Your task to perform on an android device: turn on javascript in the chrome app Image 0: 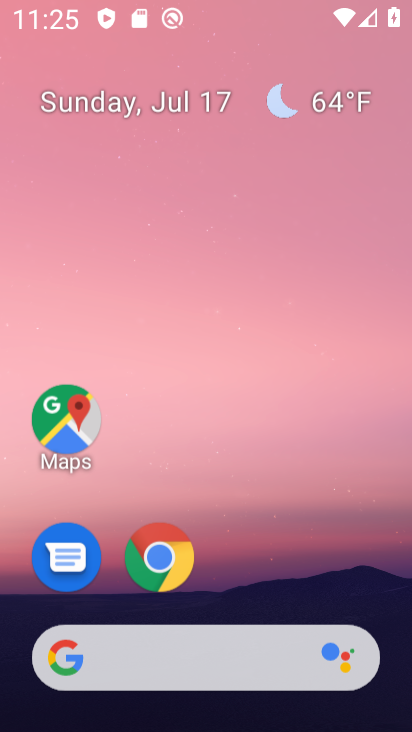
Step 0: drag from (344, 536) to (331, 341)
Your task to perform on an android device: turn on javascript in the chrome app Image 1: 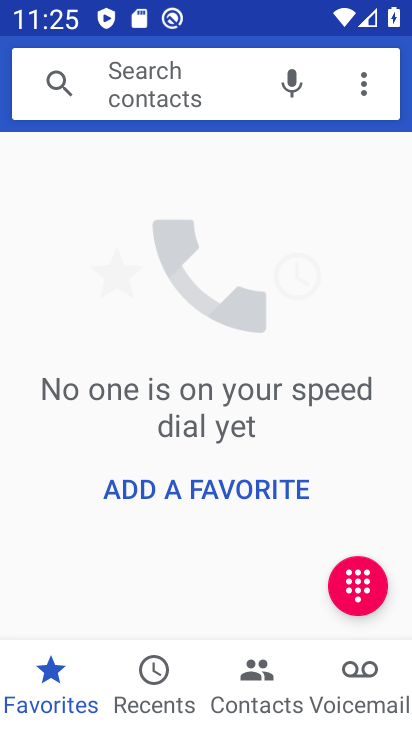
Step 1: press home button
Your task to perform on an android device: turn on javascript in the chrome app Image 2: 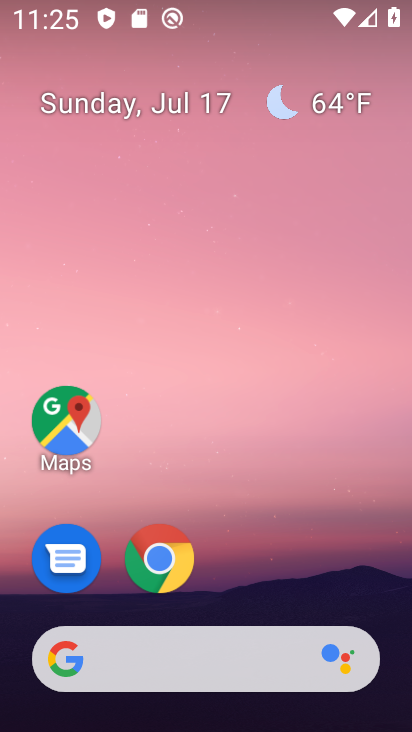
Step 2: drag from (333, 573) to (337, 97)
Your task to perform on an android device: turn on javascript in the chrome app Image 3: 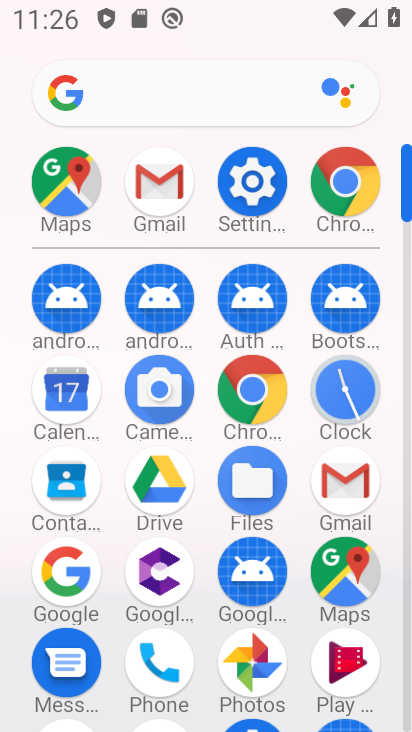
Step 3: click (358, 199)
Your task to perform on an android device: turn on javascript in the chrome app Image 4: 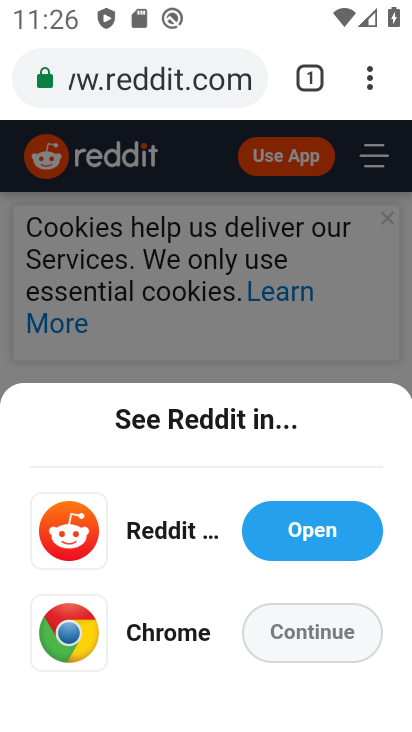
Step 4: click (367, 86)
Your task to perform on an android device: turn on javascript in the chrome app Image 5: 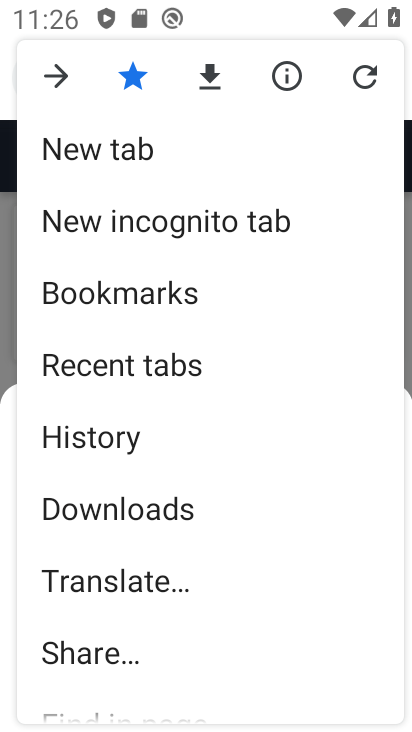
Step 5: drag from (357, 582) to (354, 500)
Your task to perform on an android device: turn on javascript in the chrome app Image 6: 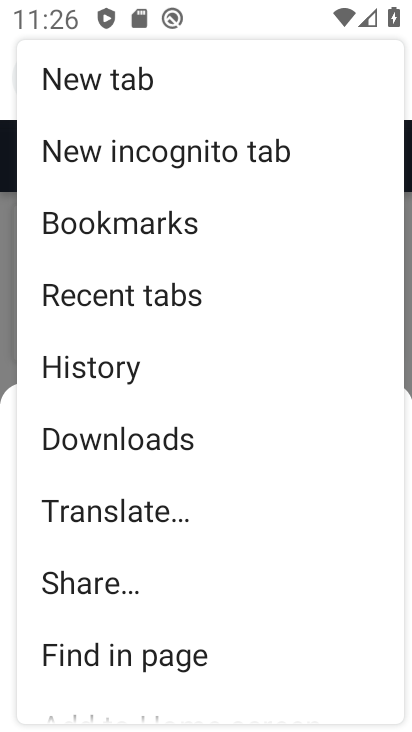
Step 6: drag from (345, 611) to (329, 503)
Your task to perform on an android device: turn on javascript in the chrome app Image 7: 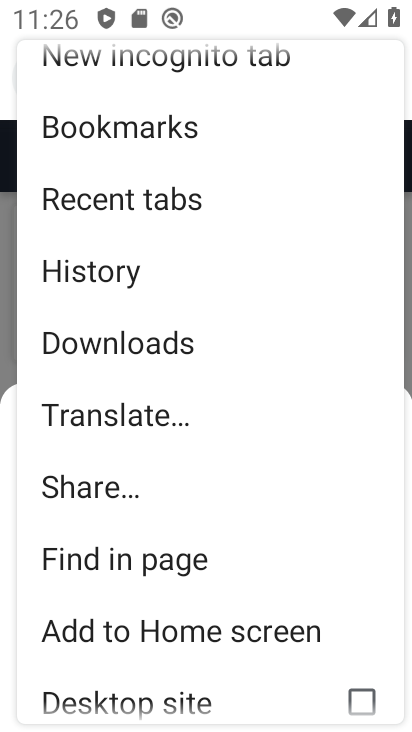
Step 7: drag from (322, 591) to (314, 472)
Your task to perform on an android device: turn on javascript in the chrome app Image 8: 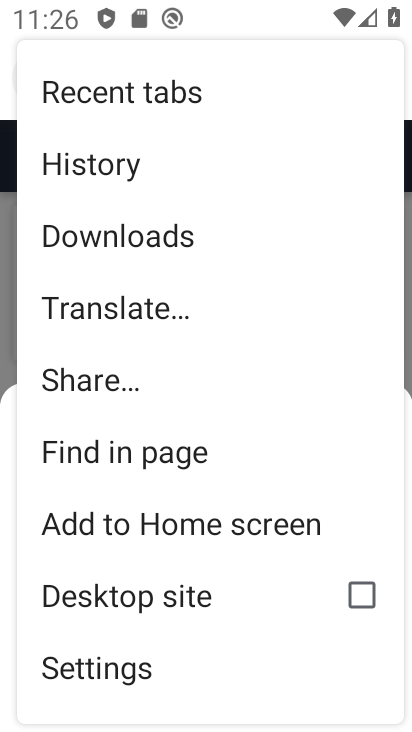
Step 8: drag from (299, 615) to (302, 473)
Your task to perform on an android device: turn on javascript in the chrome app Image 9: 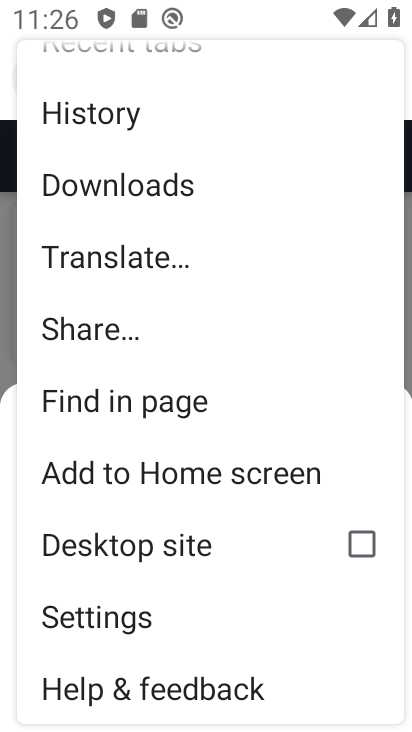
Step 9: click (163, 619)
Your task to perform on an android device: turn on javascript in the chrome app Image 10: 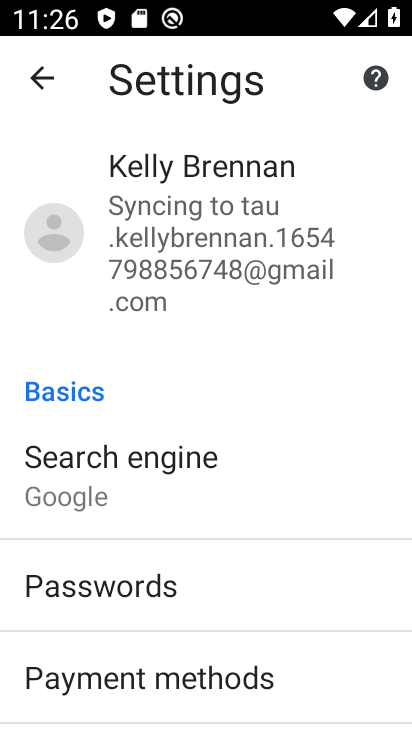
Step 10: drag from (327, 554) to (333, 469)
Your task to perform on an android device: turn on javascript in the chrome app Image 11: 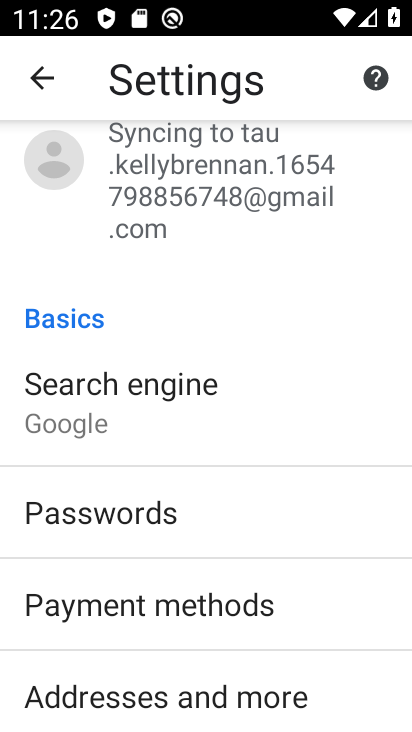
Step 11: drag from (346, 569) to (350, 479)
Your task to perform on an android device: turn on javascript in the chrome app Image 12: 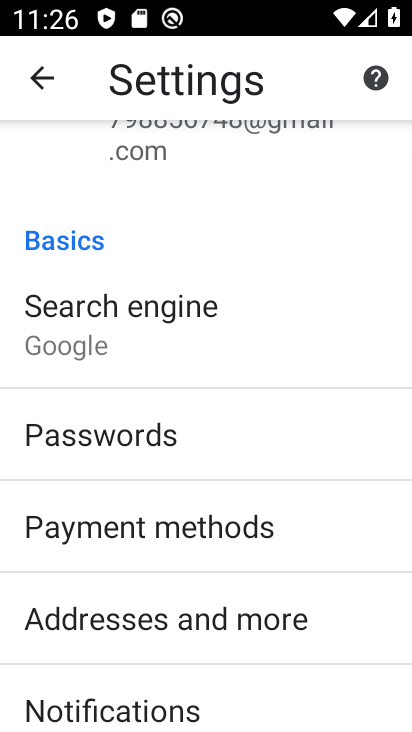
Step 12: drag from (350, 546) to (347, 451)
Your task to perform on an android device: turn on javascript in the chrome app Image 13: 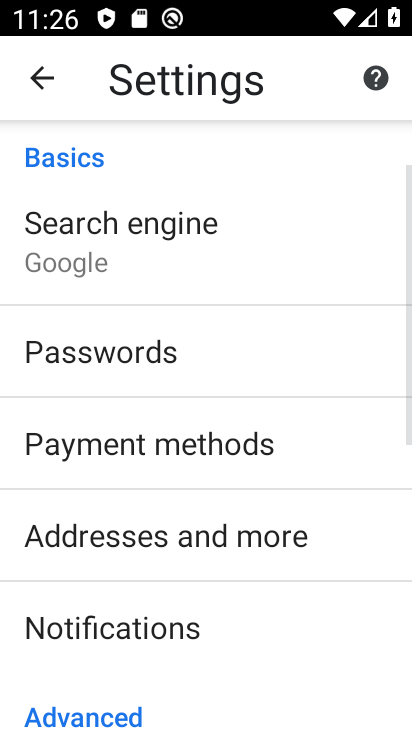
Step 13: drag from (353, 568) to (353, 475)
Your task to perform on an android device: turn on javascript in the chrome app Image 14: 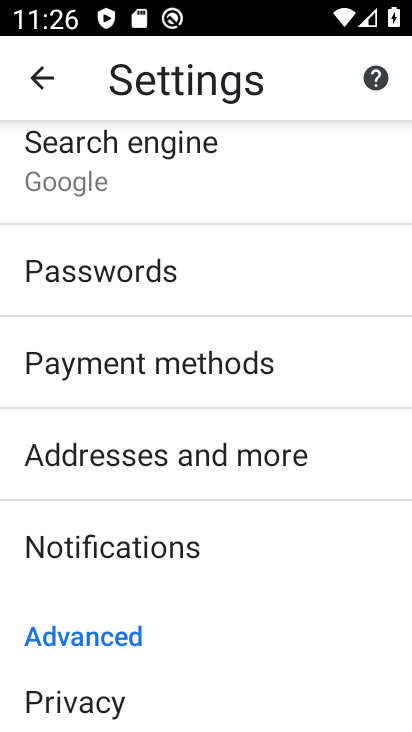
Step 14: drag from (350, 589) to (353, 497)
Your task to perform on an android device: turn on javascript in the chrome app Image 15: 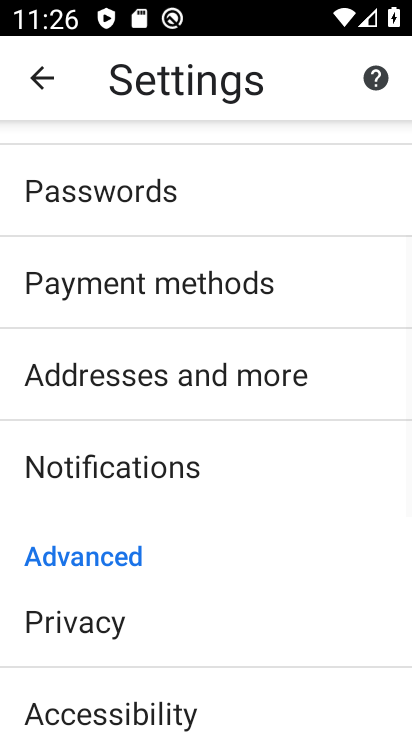
Step 15: drag from (344, 606) to (349, 501)
Your task to perform on an android device: turn on javascript in the chrome app Image 16: 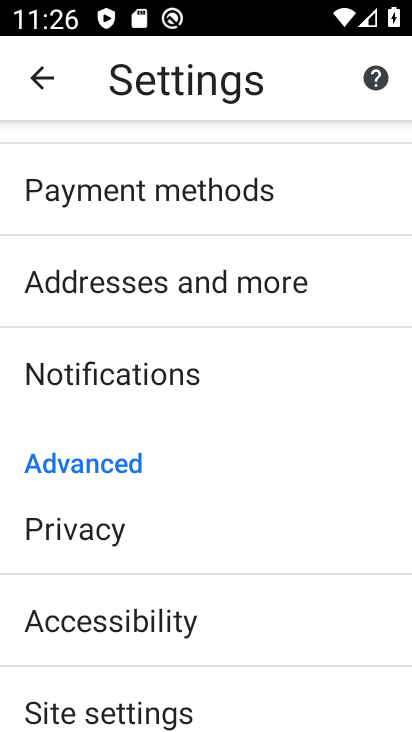
Step 16: drag from (327, 557) to (317, 324)
Your task to perform on an android device: turn on javascript in the chrome app Image 17: 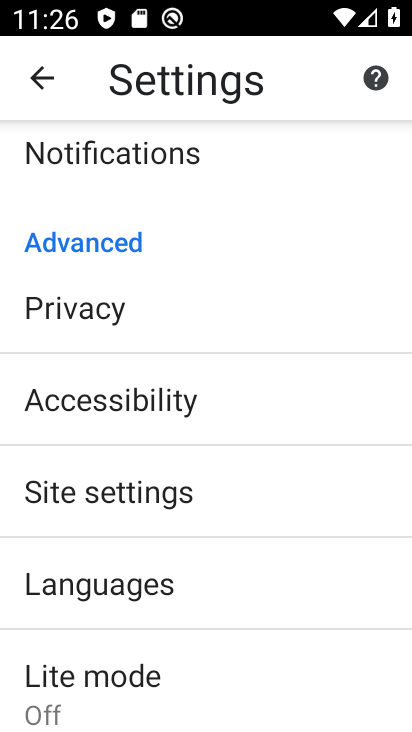
Step 17: click (305, 496)
Your task to perform on an android device: turn on javascript in the chrome app Image 18: 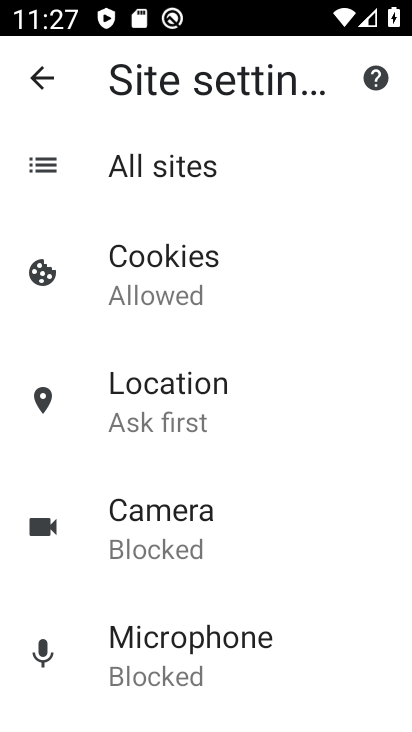
Step 18: drag from (303, 498) to (307, 422)
Your task to perform on an android device: turn on javascript in the chrome app Image 19: 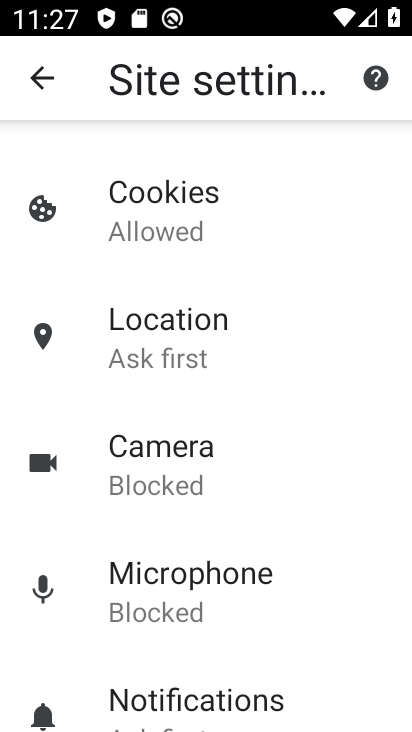
Step 19: drag from (296, 526) to (296, 418)
Your task to perform on an android device: turn on javascript in the chrome app Image 20: 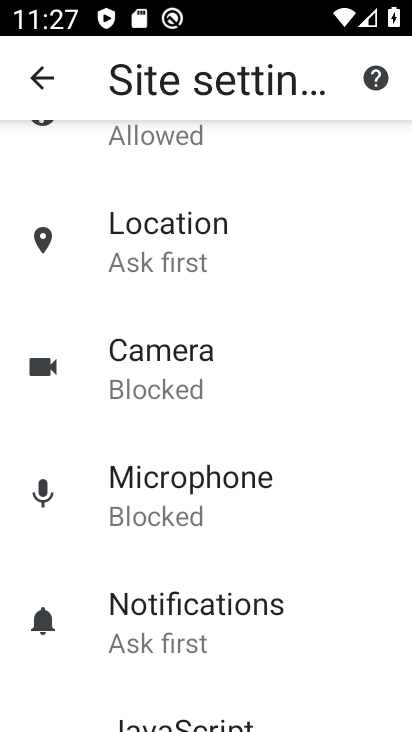
Step 20: drag from (307, 521) to (308, 427)
Your task to perform on an android device: turn on javascript in the chrome app Image 21: 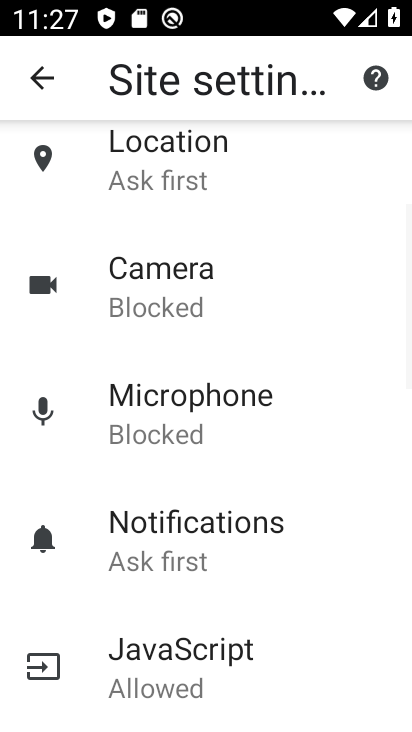
Step 21: drag from (327, 540) to (327, 428)
Your task to perform on an android device: turn on javascript in the chrome app Image 22: 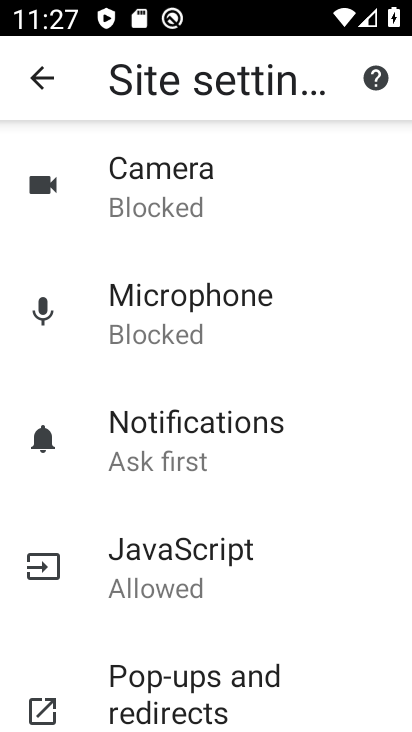
Step 22: drag from (326, 547) to (327, 380)
Your task to perform on an android device: turn on javascript in the chrome app Image 23: 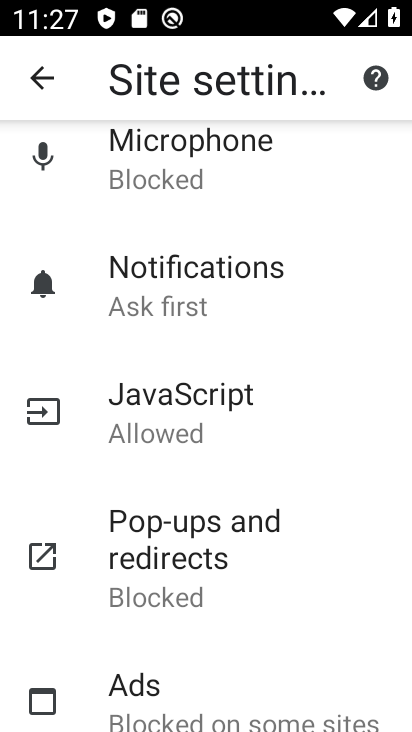
Step 23: click (275, 421)
Your task to perform on an android device: turn on javascript in the chrome app Image 24: 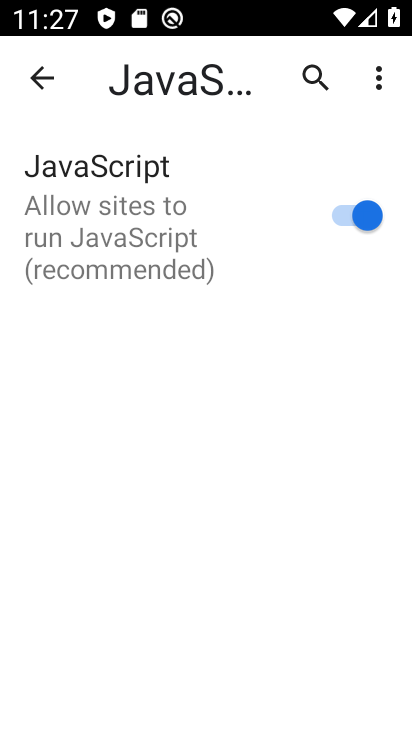
Step 24: task complete